Your task to perform on an android device: change timer sound Image 0: 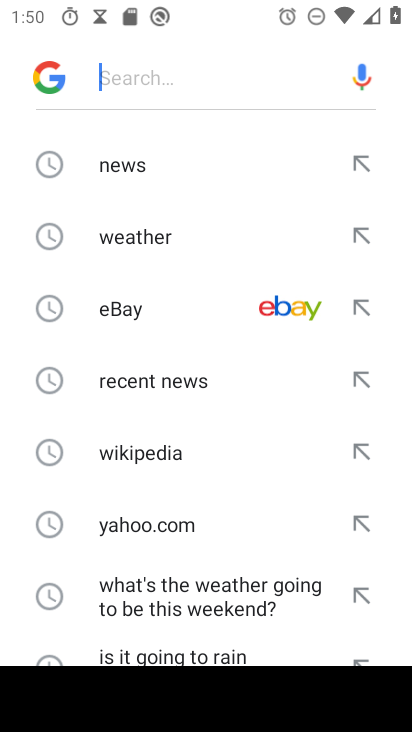
Step 0: press home button
Your task to perform on an android device: change timer sound Image 1: 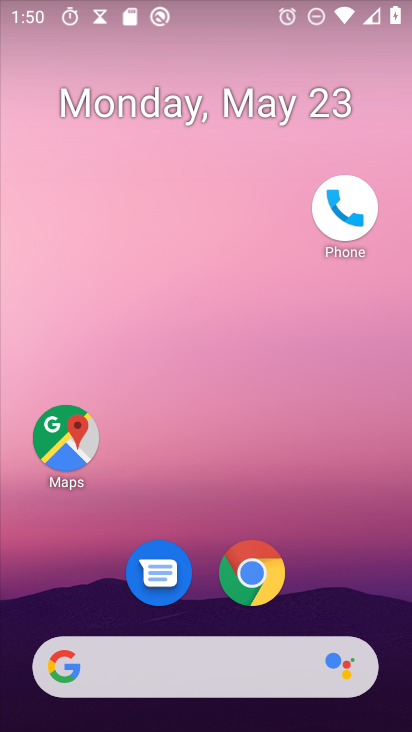
Step 1: drag from (207, 664) to (299, 95)
Your task to perform on an android device: change timer sound Image 2: 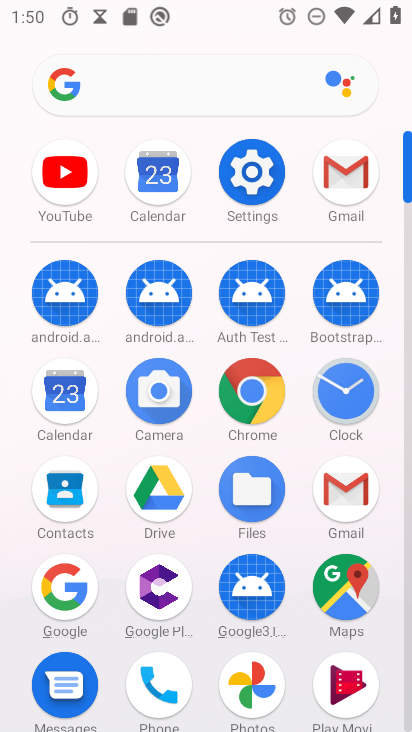
Step 2: click (343, 407)
Your task to perform on an android device: change timer sound Image 3: 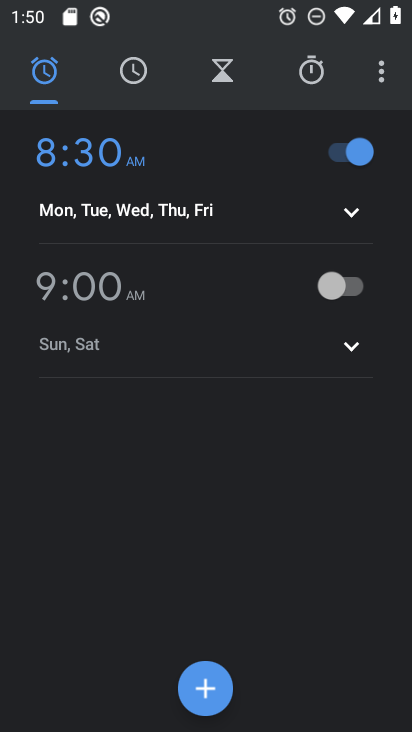
Step 3: click (381, 70)
Your task to perform on an android device: change timer sound Image 4: 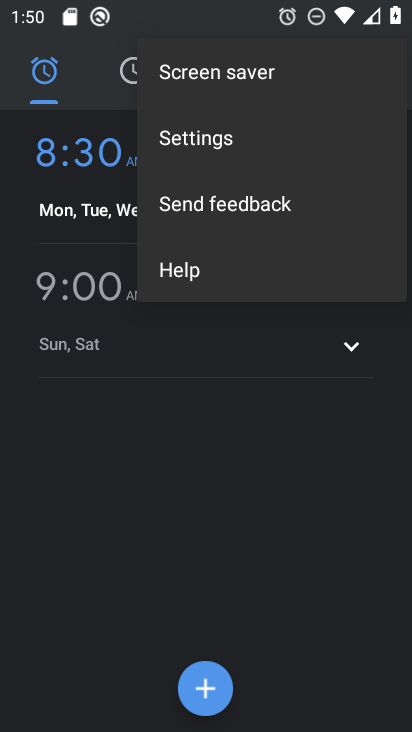
Step 4: click (195, 143)
Your task to perform on an android device: change timer sound Image 5: 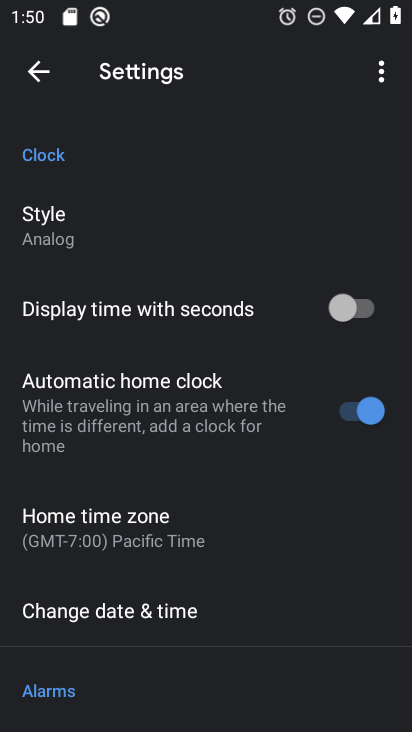
Step 5: drag from (192, 597) to (288, 134)
Your task to perform on an android device: change timer sound Image 6: 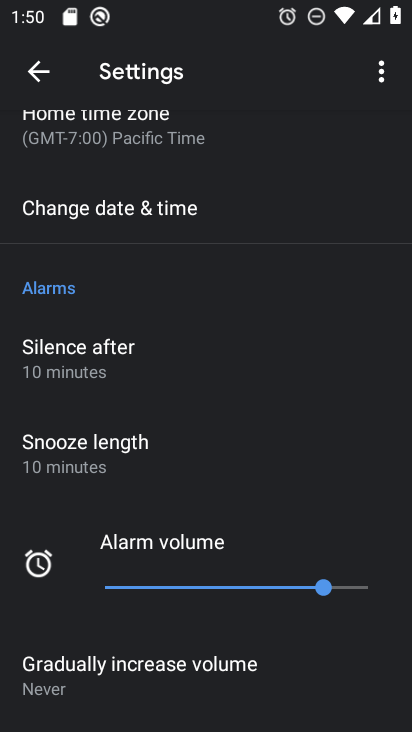
Step 6: drag from (202, 488) to (271, 80)
Your task to perform on an android device: change timer sound Image 7: 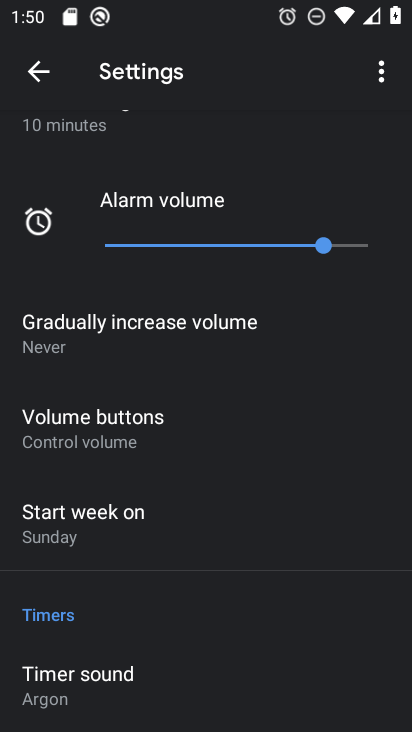
Step 7: click (95, 674)
Your task to perform on an android device: change timer sound Image 8: 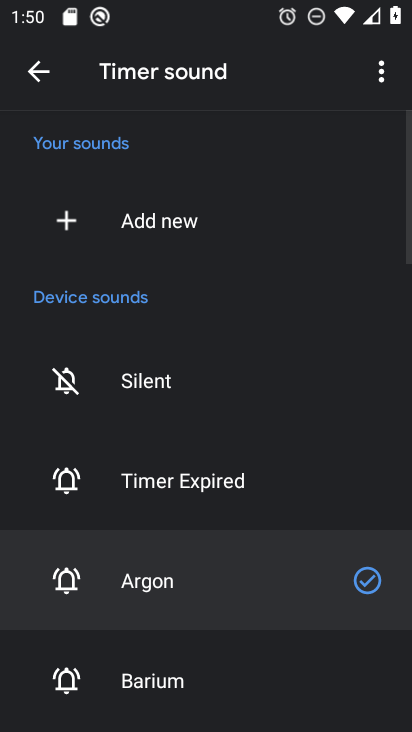
Step 8: click (171, 484)
Your task to perform on an android device: change timer sound Image 9: 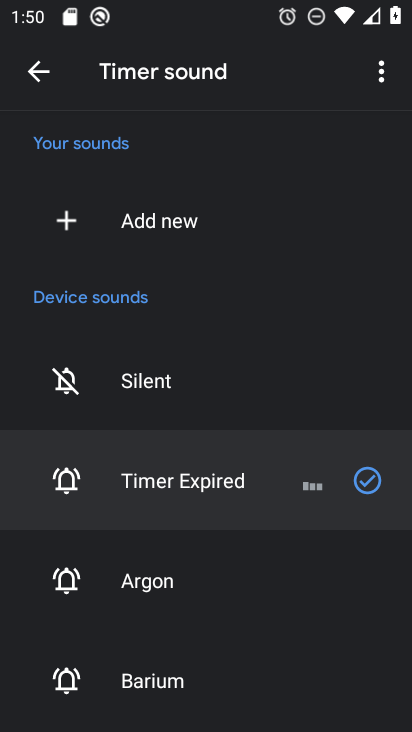
Step 9: task complete